Your task to perform on an android device: change timer sound Image 0: 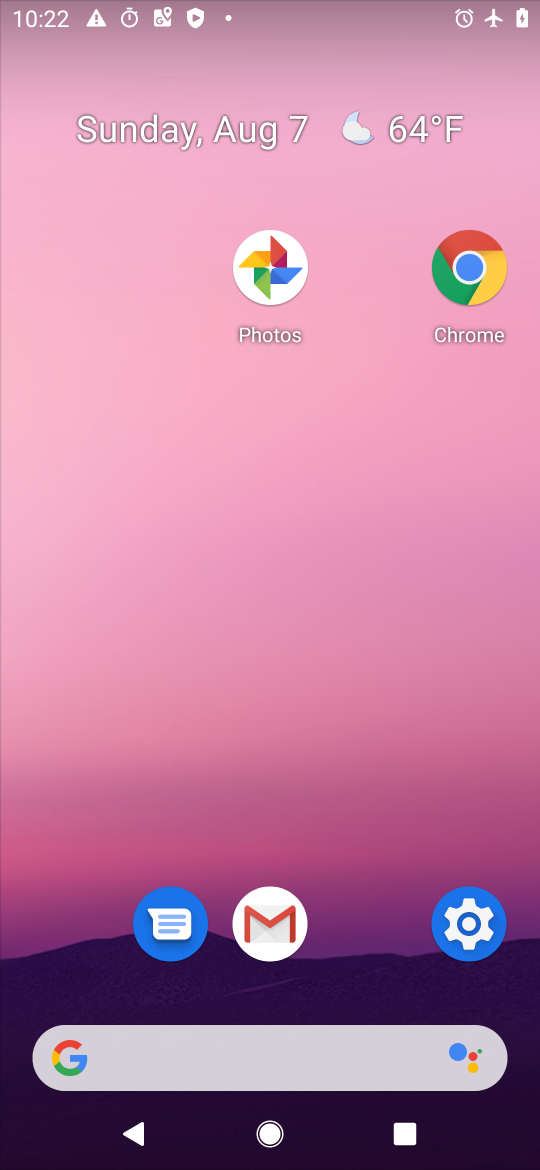
Step 0: press home button
Your task to perform on an android device: change timer sound Image 1: 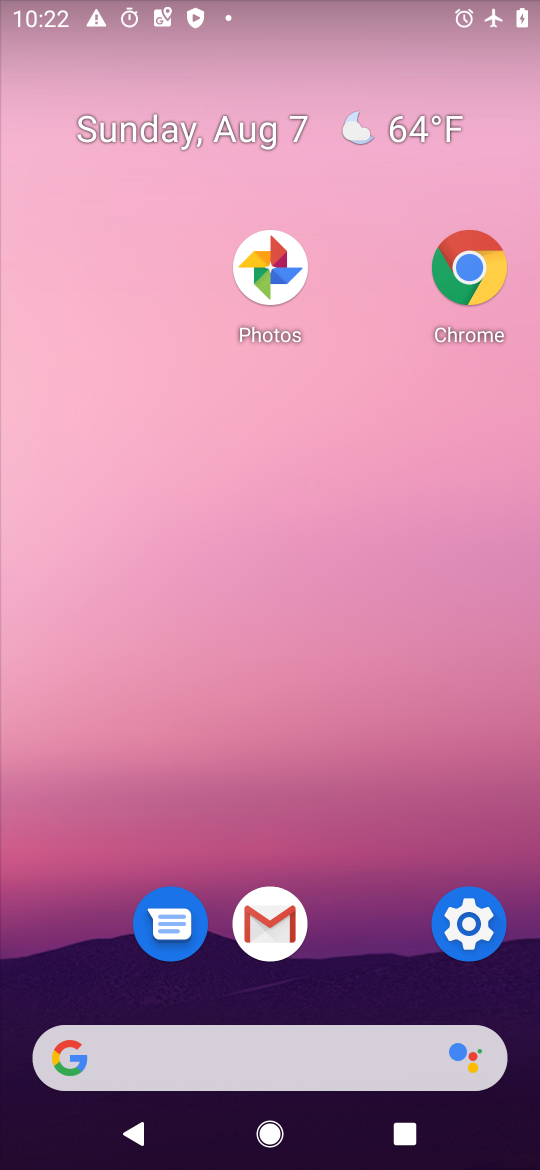
Step 1: drag from (310, 966) to (197, 342)
Your task to perform on an android device: change timer sound Image 2: 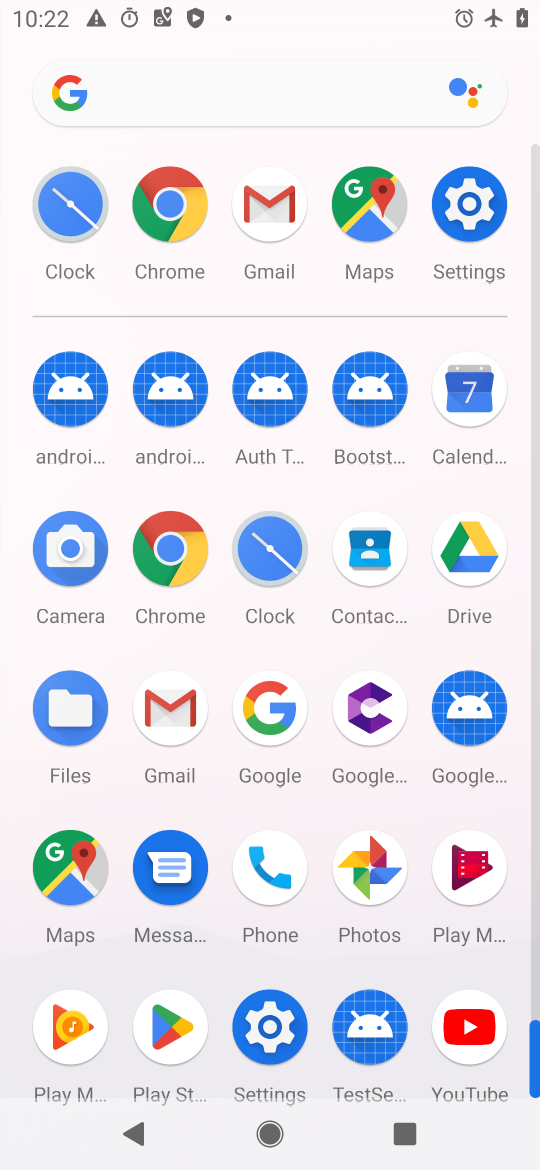
Step 2: click (465, 183)
Your task to perform on an android device: change timer sound Image 3: 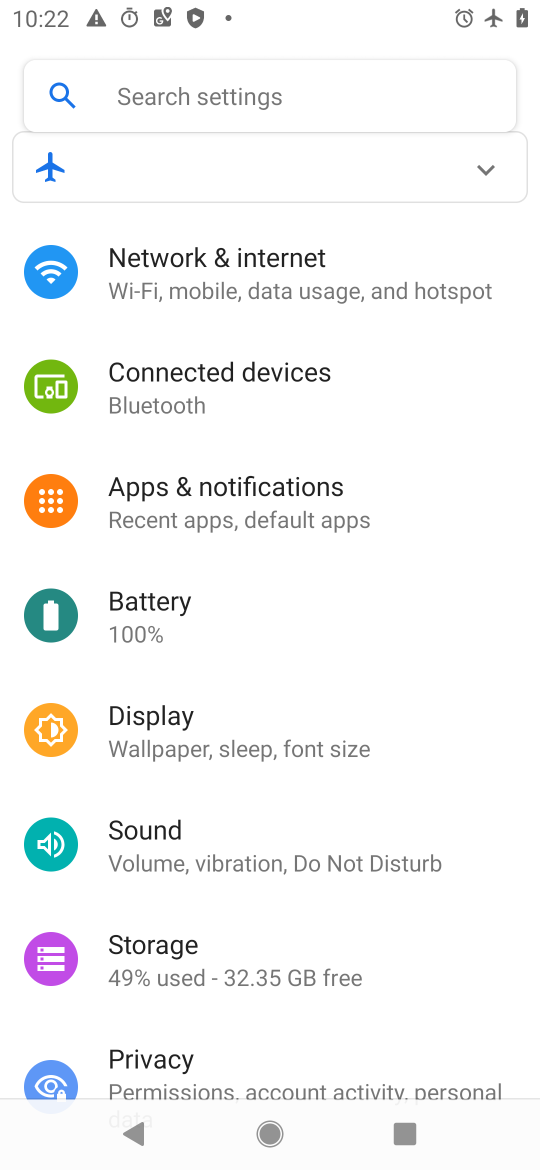
Step 3: press home button
Your task to perform on an android device: change timer sound Image 4: 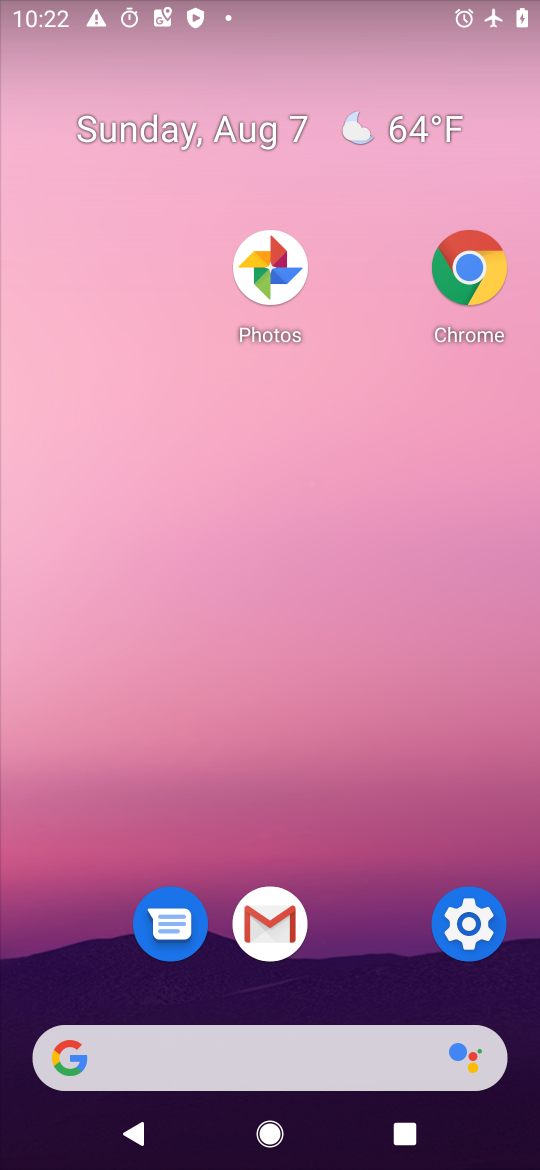
Step 4: drag from (341, 1097) to (227, 459)
Your task to perform on an android device: change timer sound Image 5: 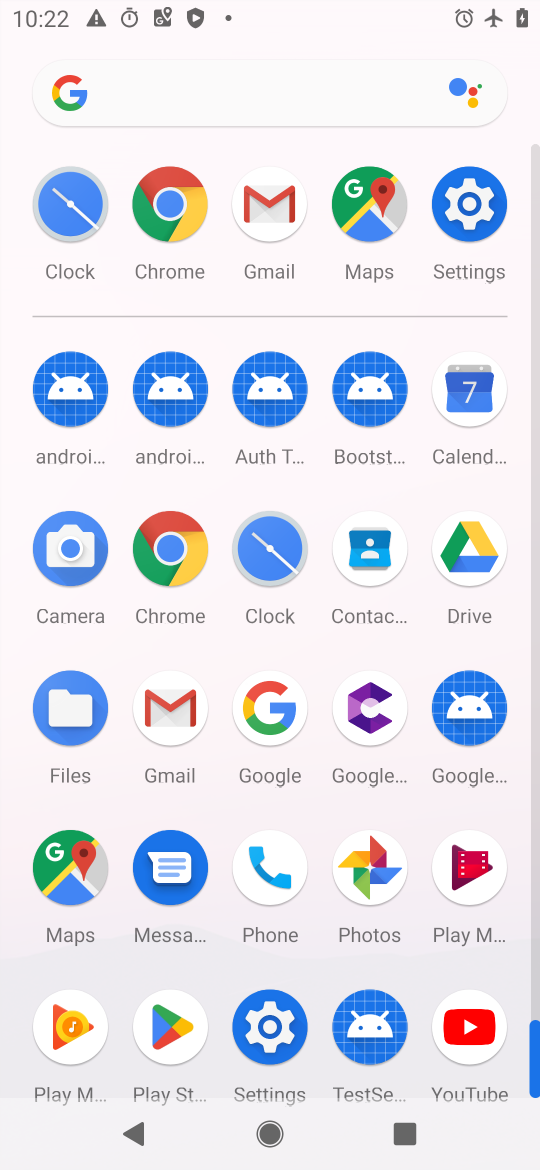
Step 5: click (254, 538)
Your task to perform on an android device: change timer sound Image 6: 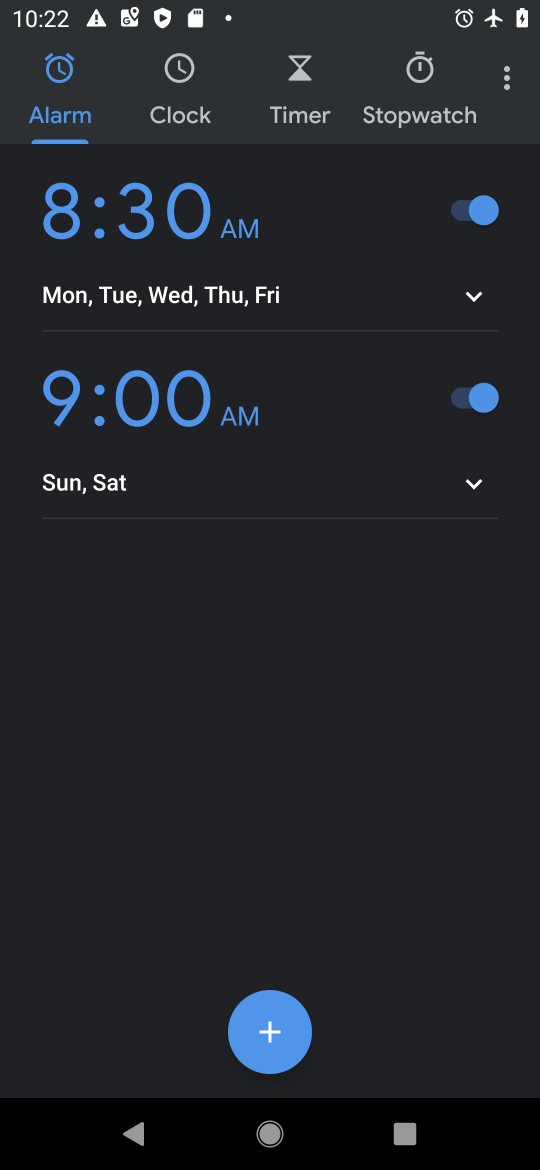
Step 6: click (502, 80)
Your task to perform on an android device: change timer sound Image 7: 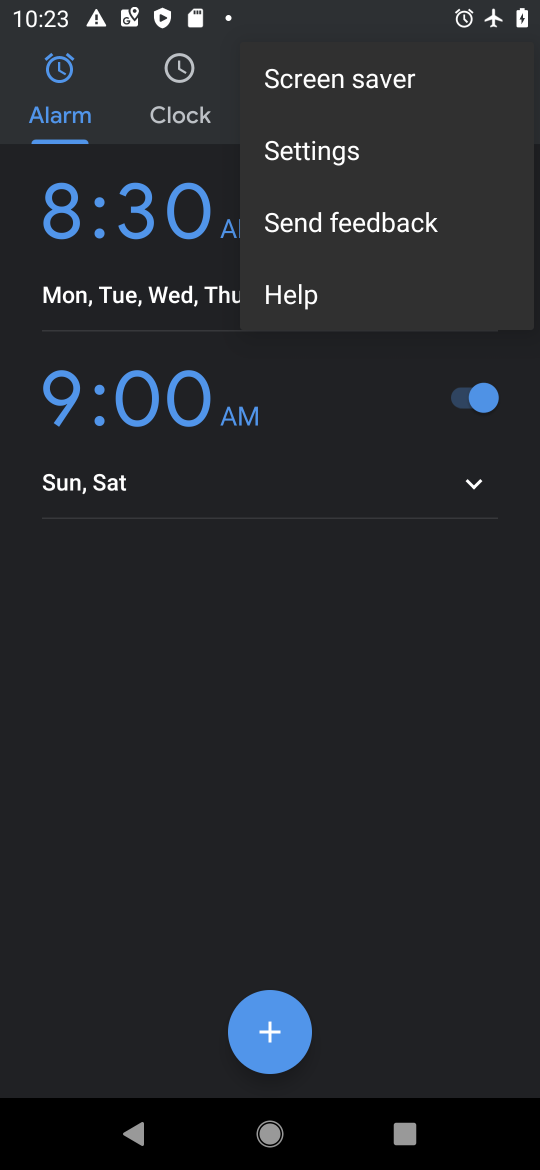
Step 7: click (330, 159)
Your task to perform on an android device: change timer sound Image 8: 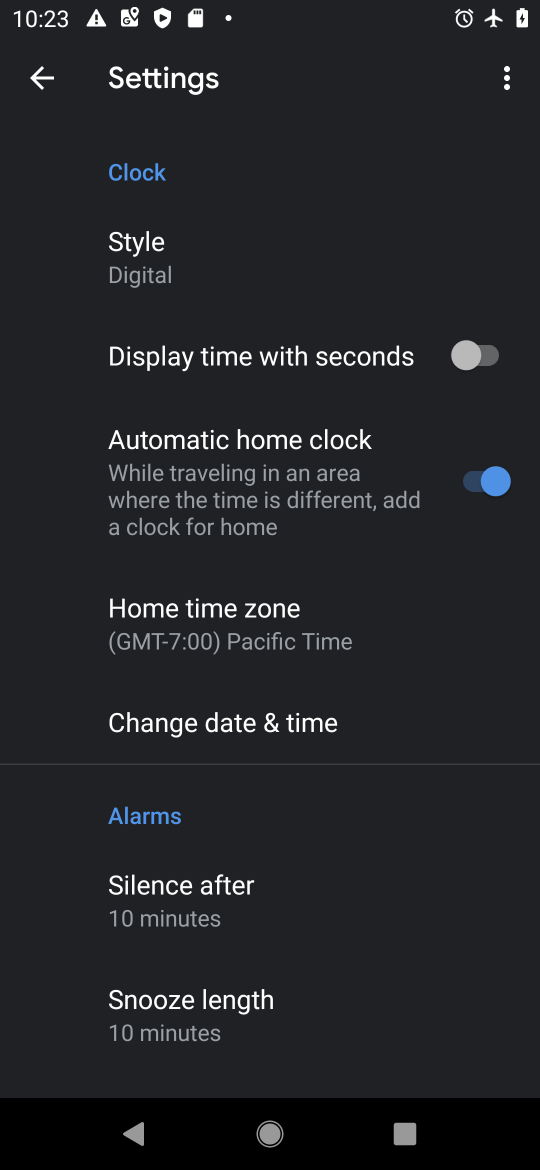
Step 8: drag from (260, 981) to (250, 434)
Your task to perform on an android device: change timer sound Image 9: 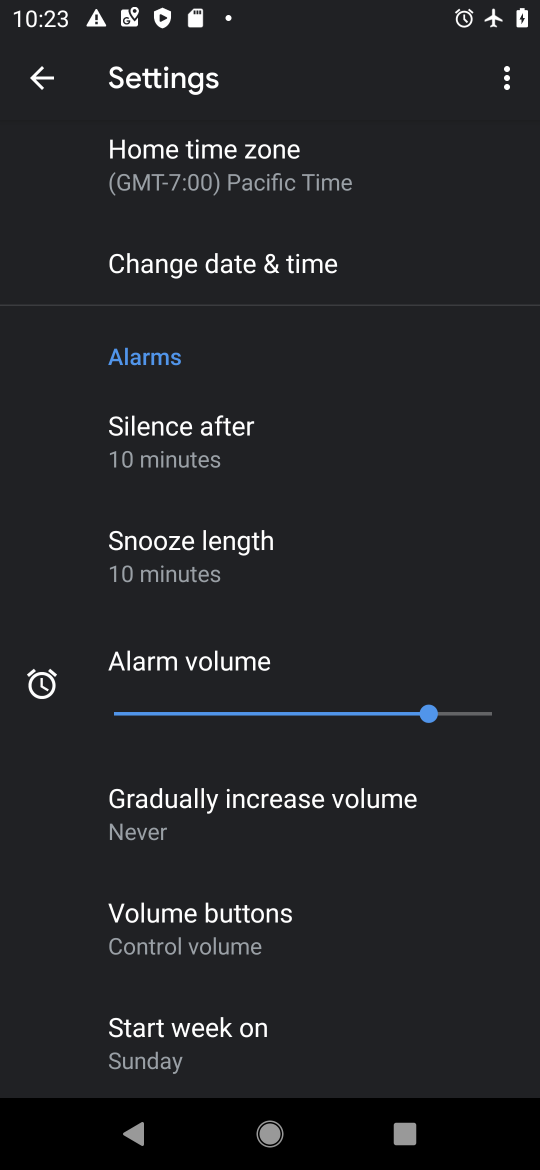
Step 9: drag from (308, 1006) to (316, 516)
Your task to perform on an android device: change timer sound Image 10: 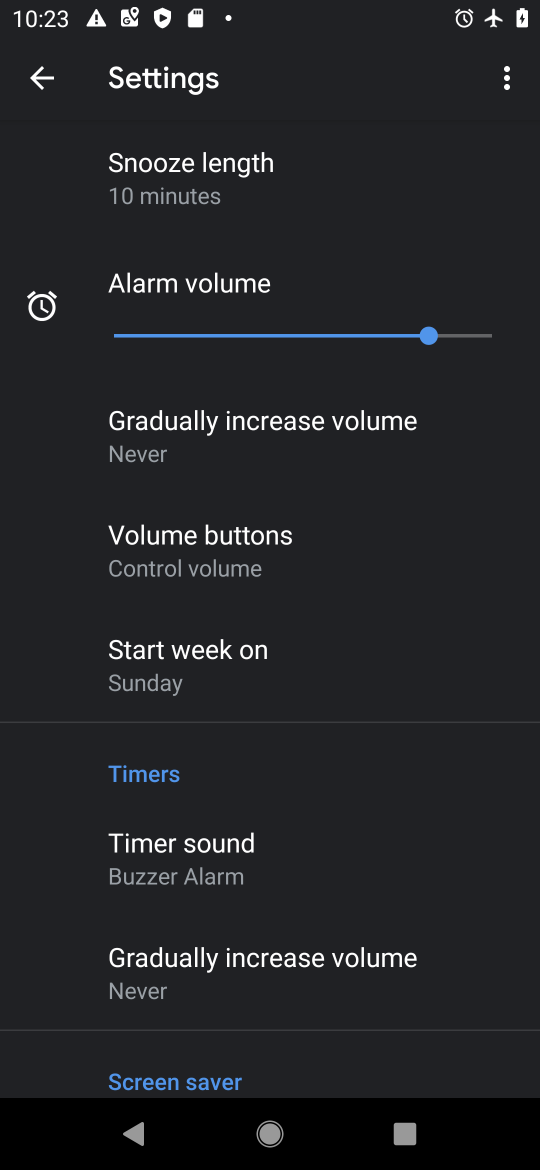
Step 10: click (225, 870)
Your task to perform on an android device: change timer sound Image 11: 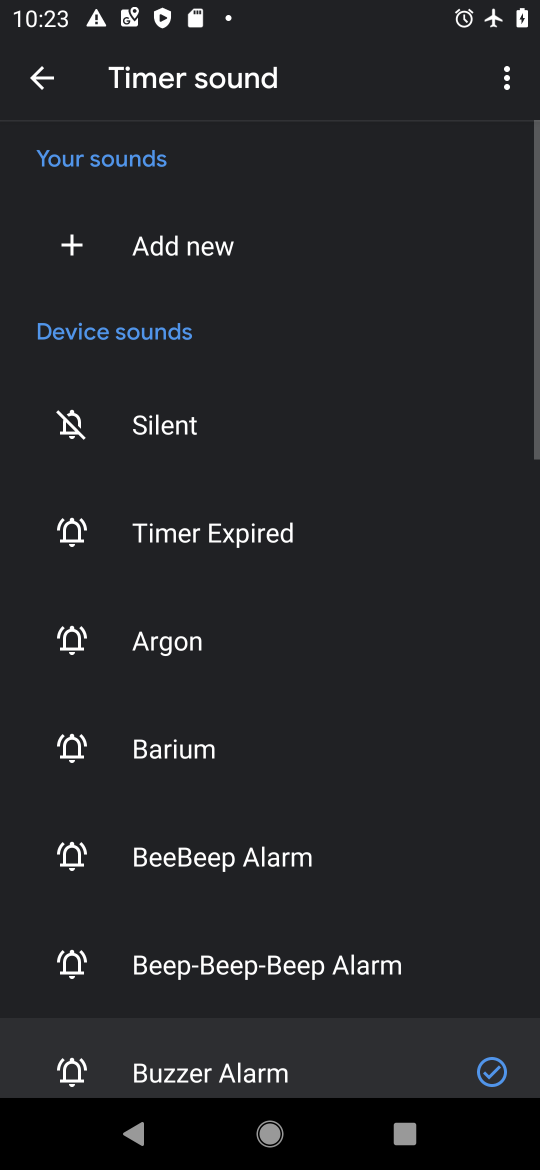
Step 11: drag from (240, 824) to (208, 426)
Your task to perform on an android device: change timer sound Image 12: 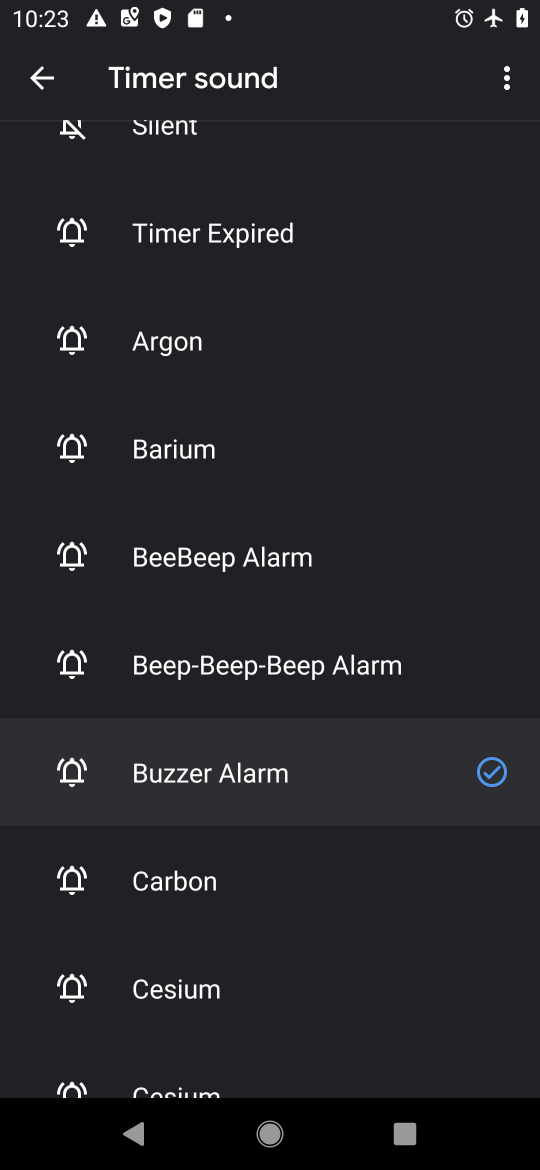
Step 12: click (243, 985)
Your task to perform on an android device: change timer sound Image 13: 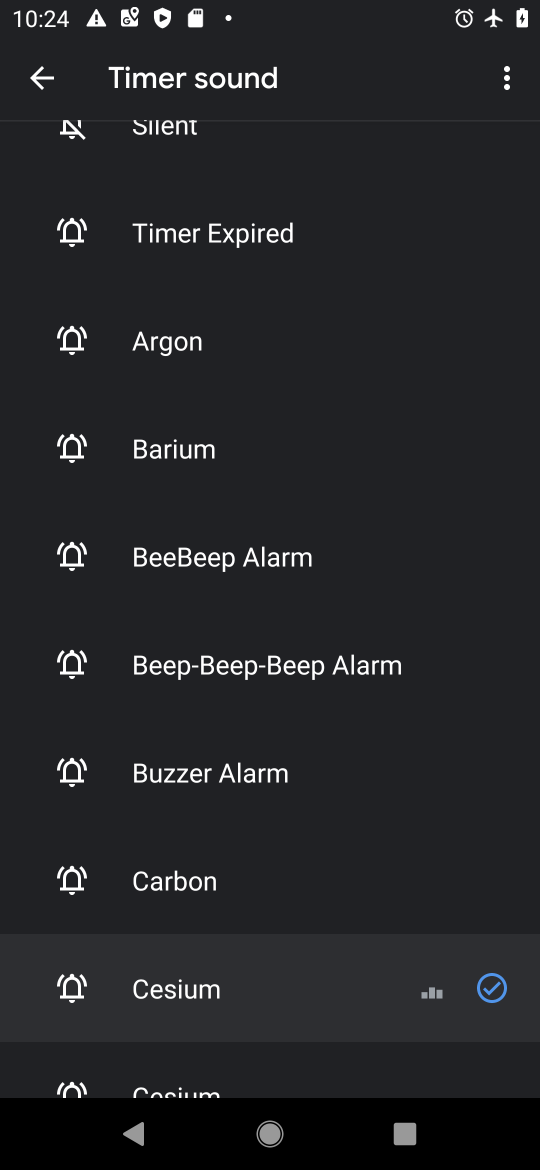
Step 13: task complete